Your task to perform on an android device: make emails show in primary in the gmail app Image 0: 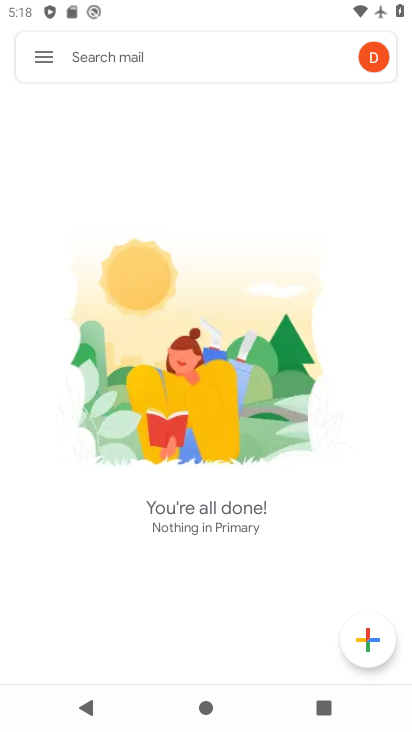
Step 0: click (44, 54)
Your task to perform on an android device: make emails show in primary in the gmail app Image 1: 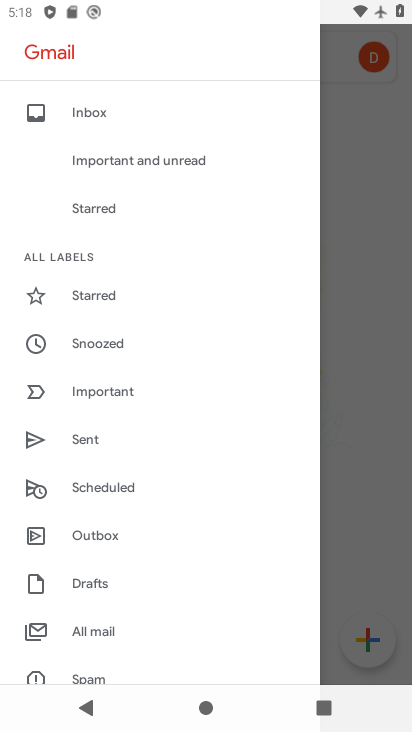
Step 1: drag from (153, 622) to (170, 244)
Your task to perform on an android device: make emails show in primary in the gmail app Image 2: 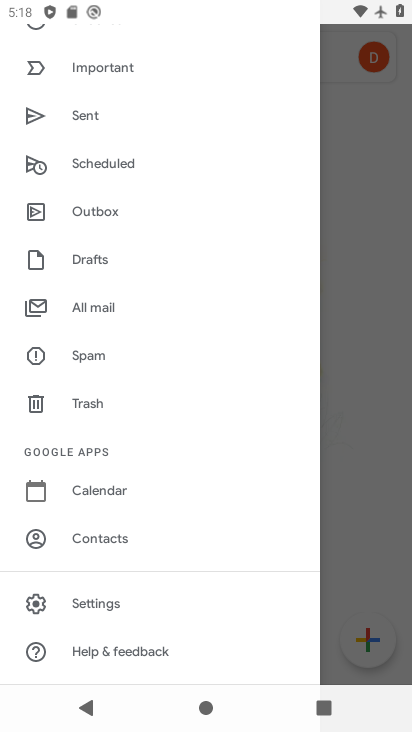
Step 2: click (93, 604)
Your task to perform on an android device: make emails show in primary in the gmail app Image 3: 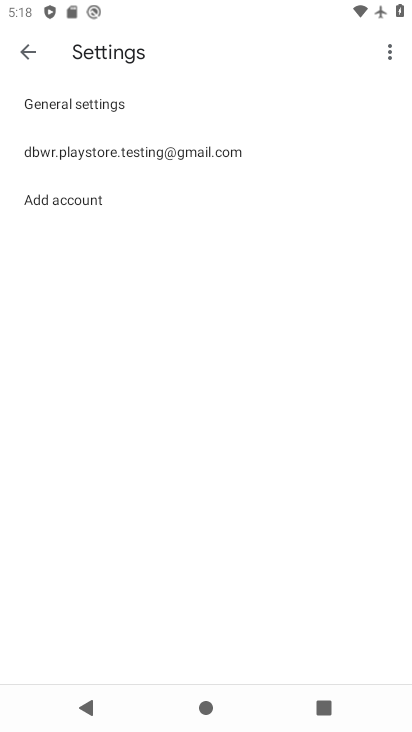
Step 3: click (162, 141)
Your task to perform on an android device: make emails show in primary in the gmail app Image 4: 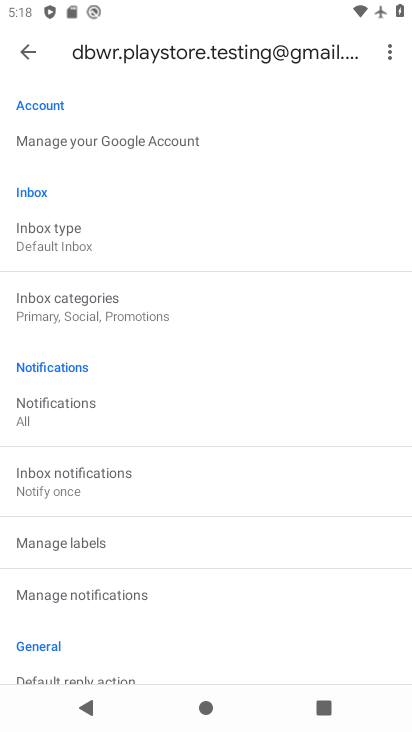
Step 4: click (83, 237)
Your task to perform on an android device: make emails show in primary in the gmail app Image 5: 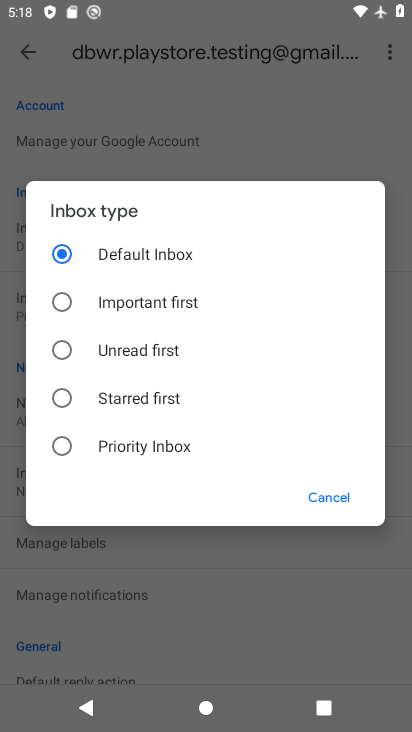
Step 5: click (156, 244)
Your task to perform on an android device: make emails show in primary in the gmail app Image 6: 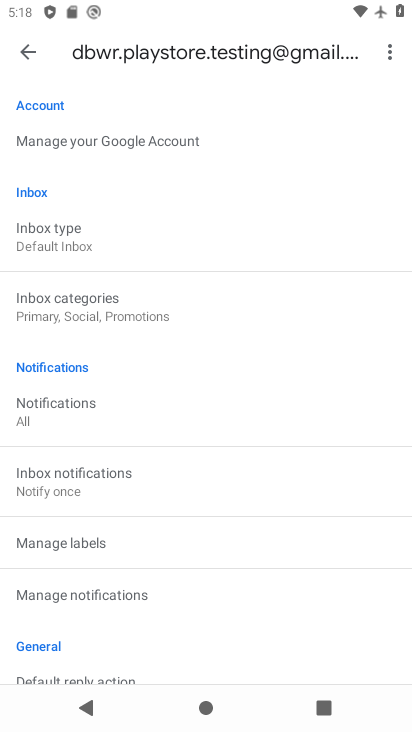
Step 6: click (110, 309)
Your task to perform on an android device: make emails show in primary in the gmail app Image 7: 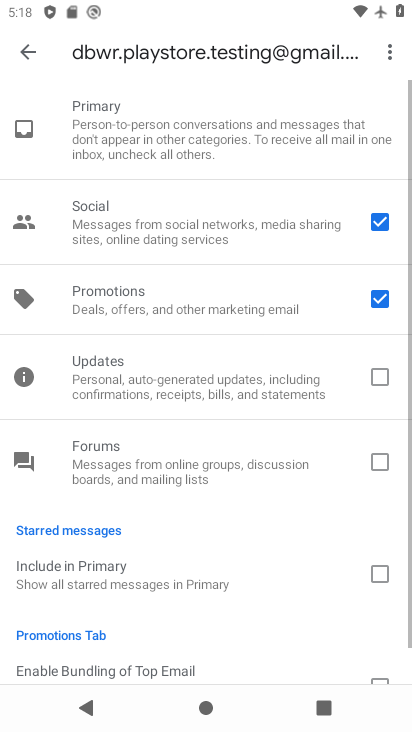
Step 7: click (372, 297)
Your task to perform on an android device: make emails show in primary in the gmail app Image 8: 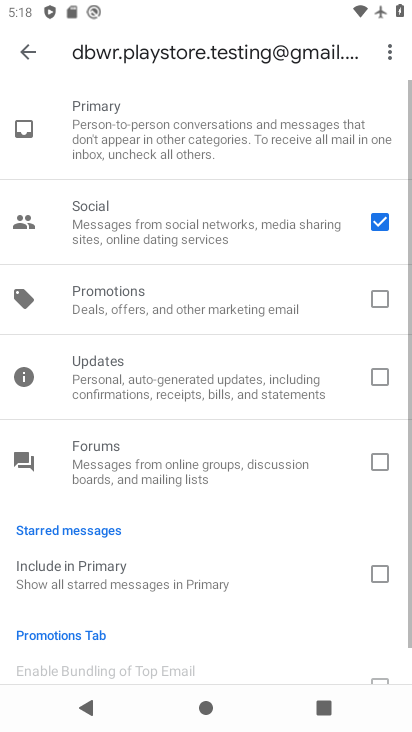
Step 8: click (371, 211)
Your task to perform on an android device: make emails show in primary in the gmail app Image 9: 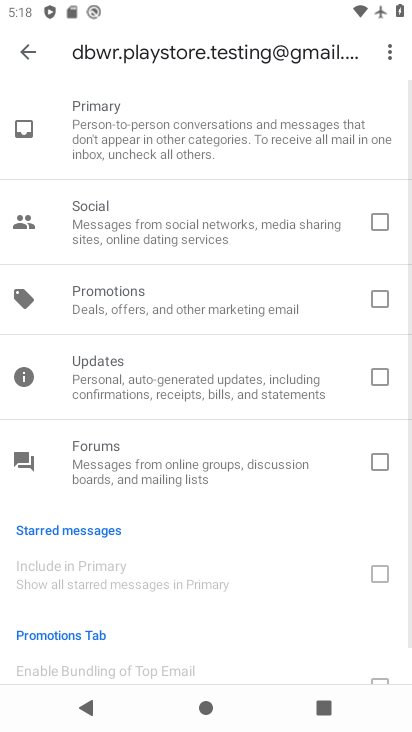
Step 9: click (27, 50)
Your task to perform on an android device: make emails show in primary in the gmail app Image 10: 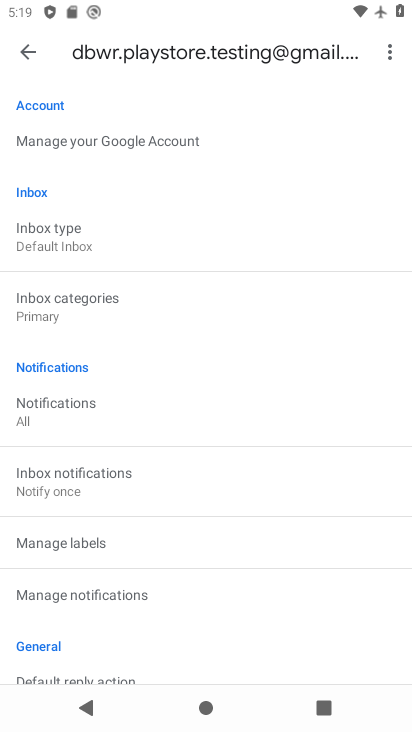
Step 10: task complete